Your task to perform on an android device: Go to location settings Image 0: 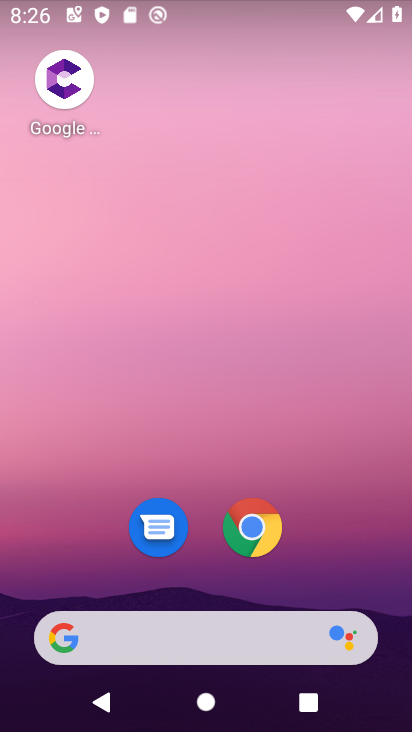
Step 0: drag from (69, 611) to (147, 183)
Your task to perform on an android device: Go to location settings Image 1: 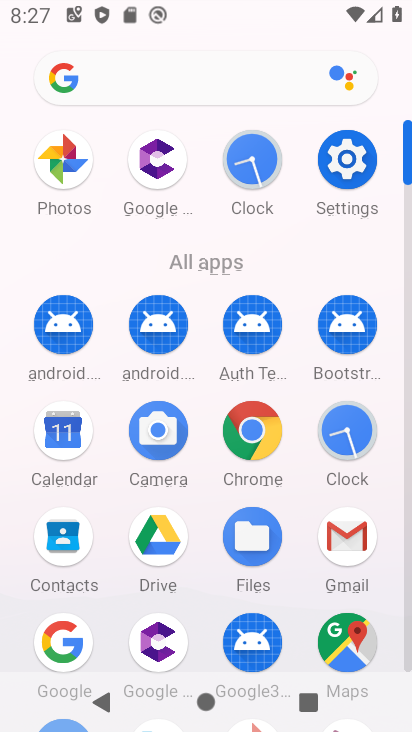
Step 1: click (360, 169)
Your task to perform on an android device: Go to location settings Image 2: 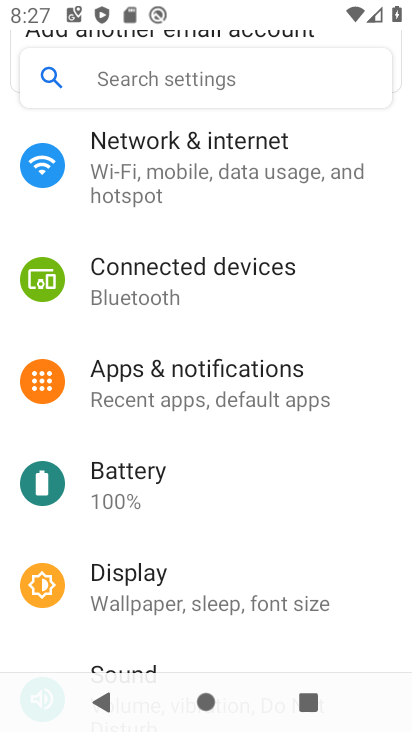
Step 2: drag from (116, 601) to (194, 251)
Your task to perform on an android device: Go to location settings Image 3: 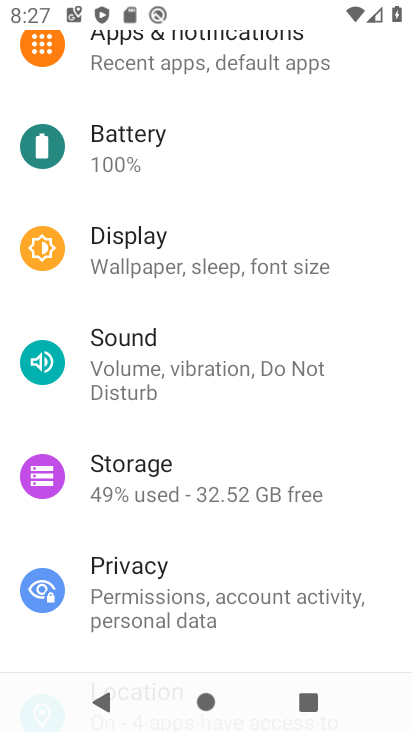
Step 3: drag from (147, 634) to (251, 311)
Your task to perform on an android device: Go to location settings Image 4: 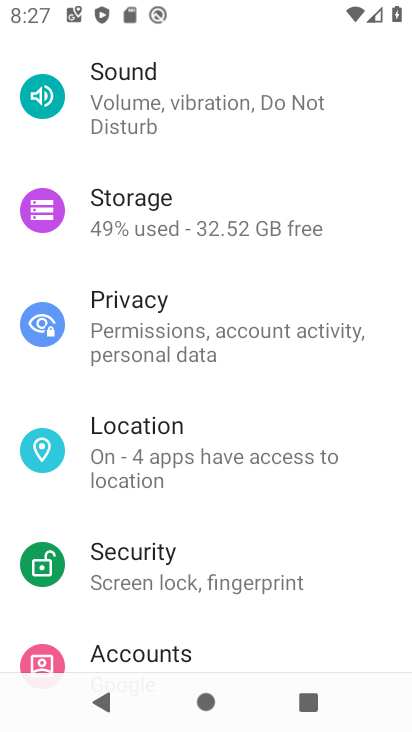
Step 4: click (182, 445)
Your task to perform on an android device: Go to location settings Image 5: 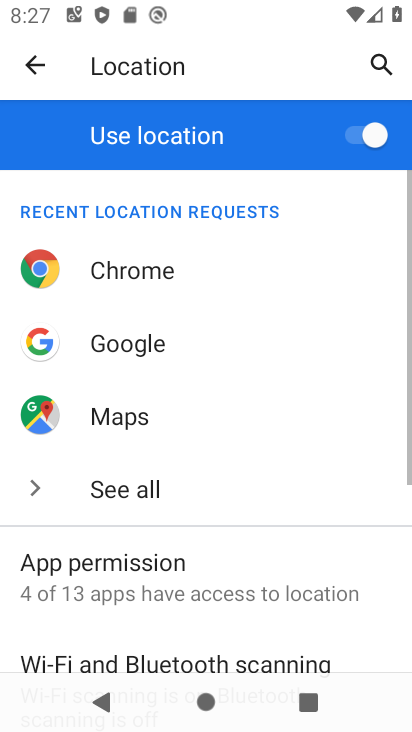
Step 5: task complete